Your task to perform on an android device: Open the Play Movies app and select the watchlist tab. Image 0: 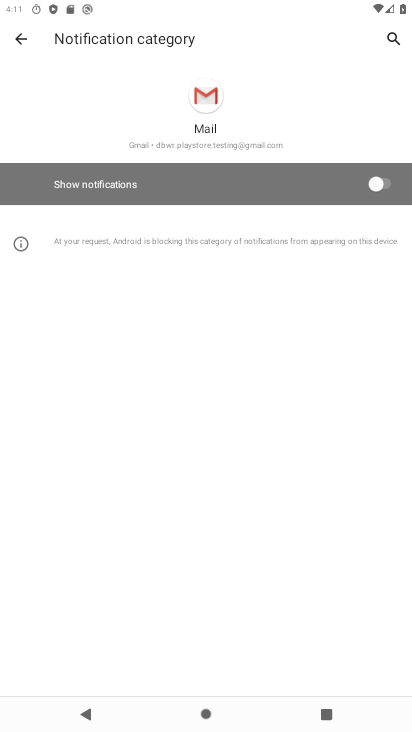
Step 0: press home button
Your task to perform on an android device: Open the Play Movies app and select the watchlist tab. Image 1: 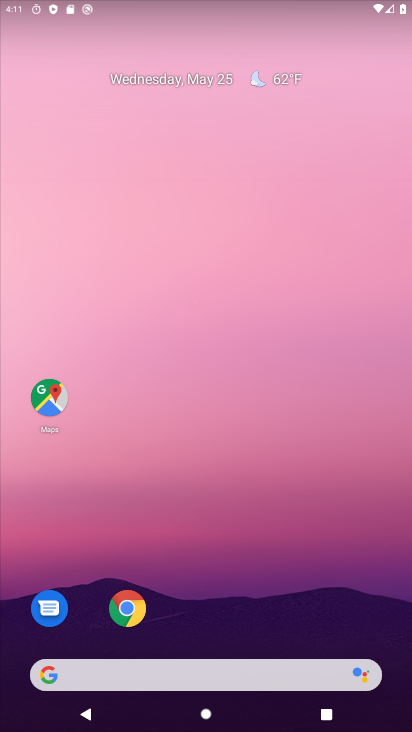
Step 1: drag from (267, 597) to (154, 197)
Your task to perform on an android device: Open the Play Movies app and select the watchlist tab. Image 2: 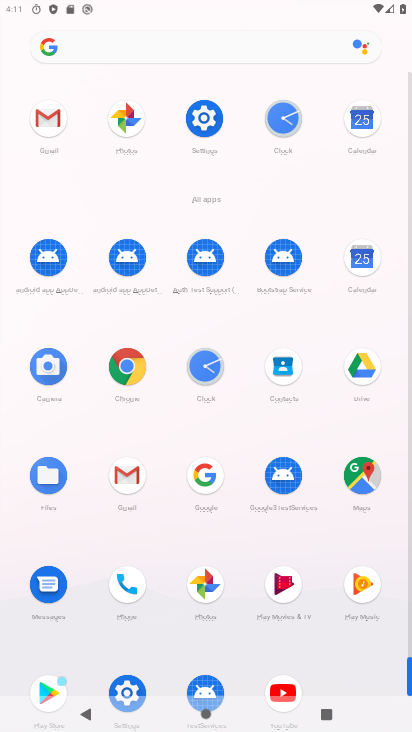
Step 2: drag from (214, 521) to (241, 413)
Your task to perform on an android device: Open the Play Movies app and select the watchlist tab. Image 3: 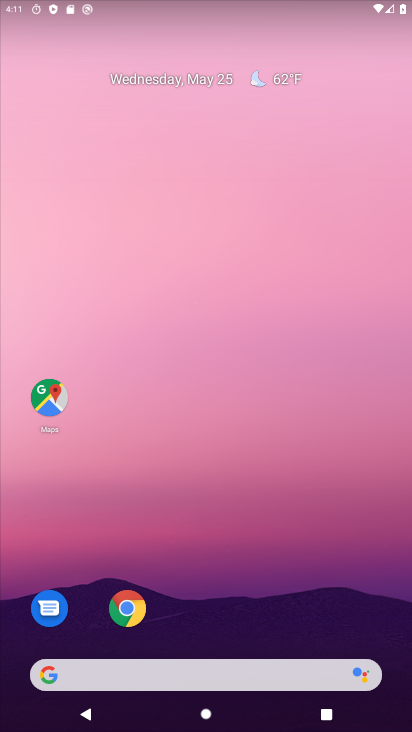
Step 3: drag from (261, 567) to (339, 71)
Your task to perform on an android device: Open the Play Movies app and select the watchlist tab. Image 4: 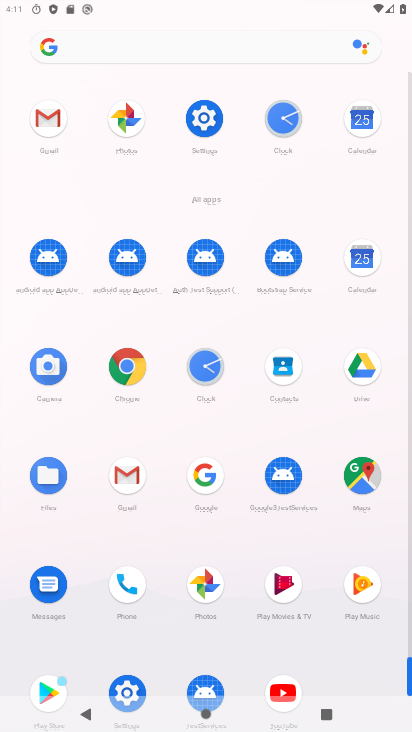
Step 4: click (283, 581)
Your task to perform on an android device: Open the Play Movies app and select the watchlist tab. Image 5: 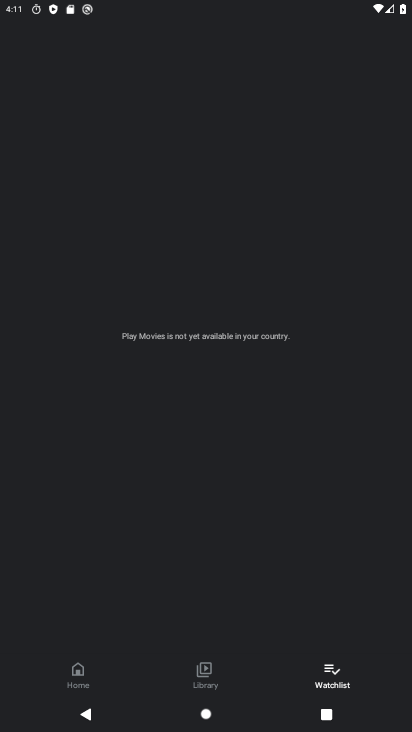
Step 5: click (334, 665)
Your task to perform on an android device: Open the Play Movies app and select the watchlist tab. Image 6: 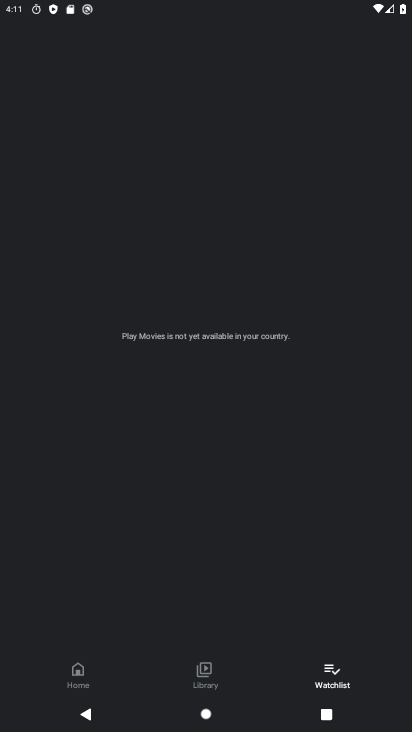
Step 6: task complete